Your task to perform on an android device: star an email in the gmail app Image 0: 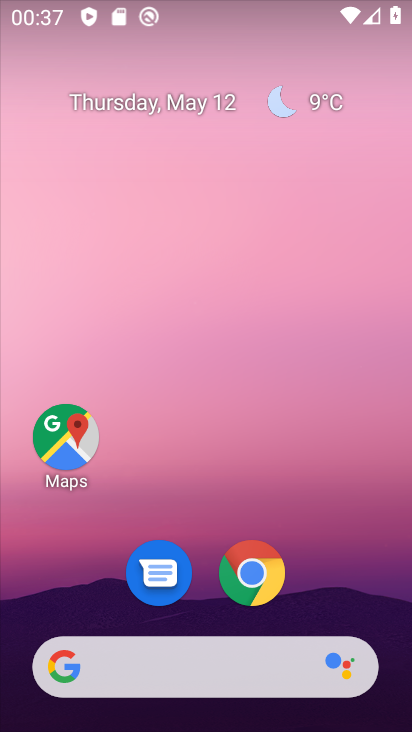
Step 0: drag from (210, 604) to (243, 3)
Your task to perform on an android device: star an email in the gmail app Image 1: 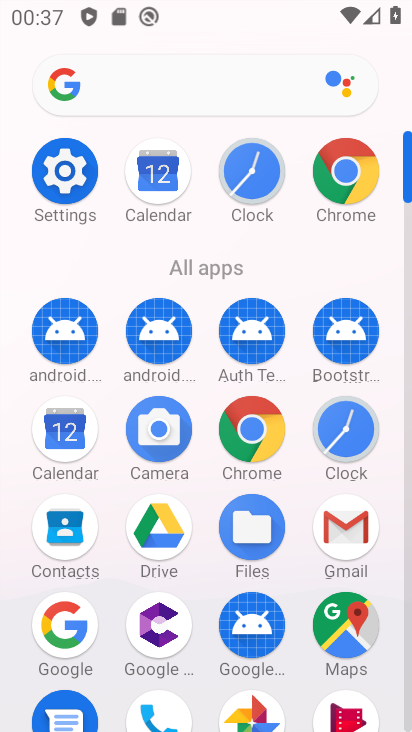
Step 1: click (347, 536)
Your task to perform on an android device: star an email in the gmail app Image 2: 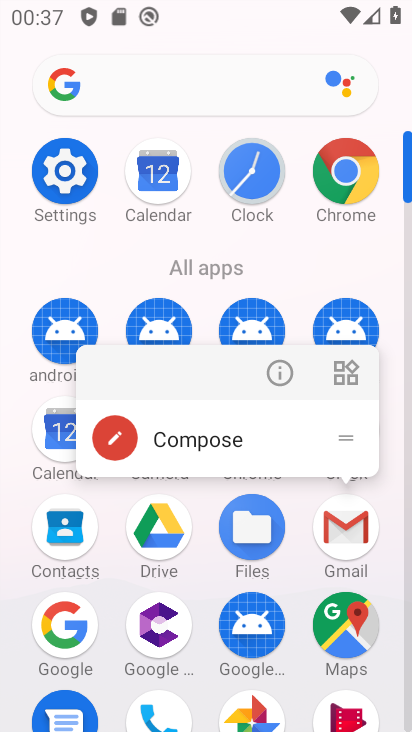
Step 2: click (350, 531)
Your task to perform on an android device: star an email in the gmail app Image 3: 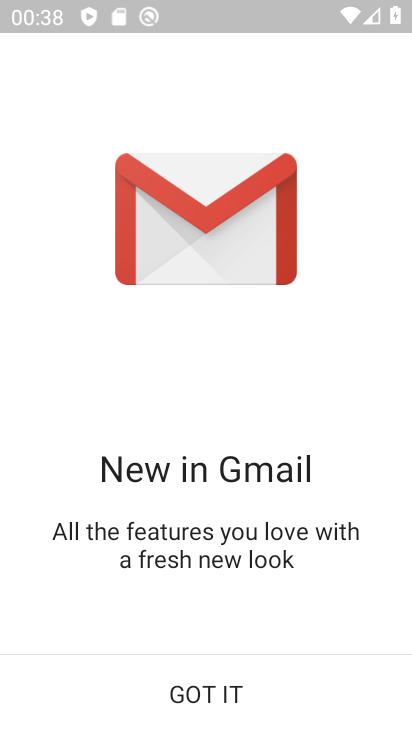
Step 3: click (200, 696)
Your task to perform on an android device: star an email in the gmail app Image 4: 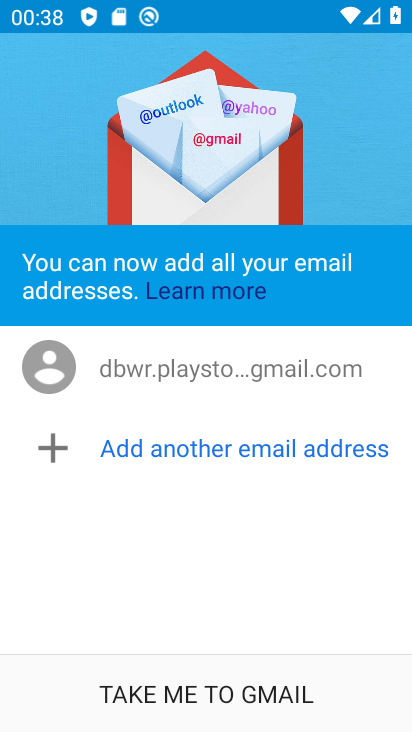
Step 4: click (191, 693)
Your task to perform on an android device: star an email in the gmail app Image 5: 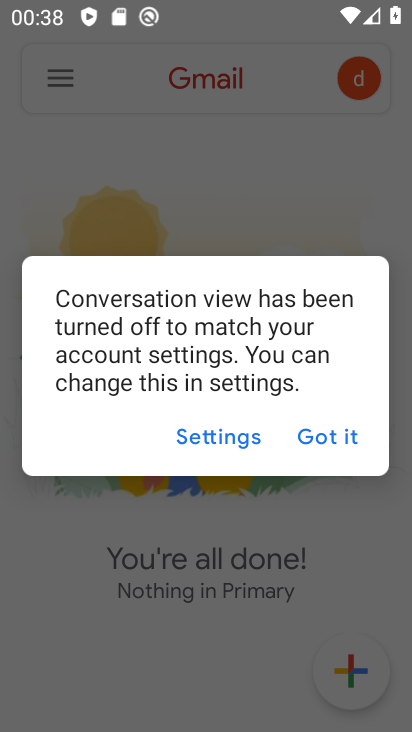
Step 5: click (309, 428)
Your task to perform on an android device: star an email in the gmail app Image 6: 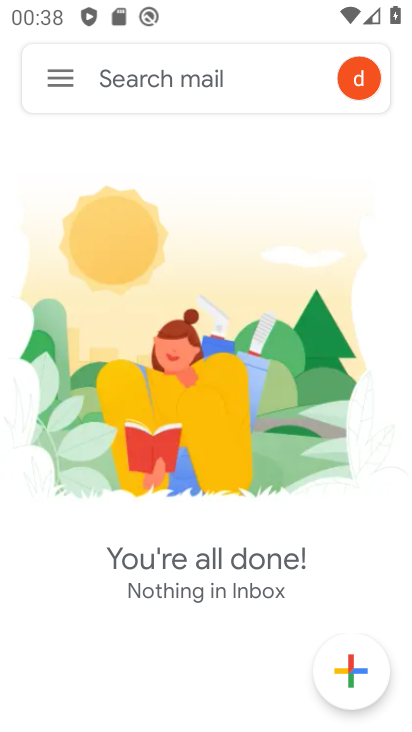
Step 6: click (52, 78)
Your task to perform on an android device: star an email in the gmail app Image 7: 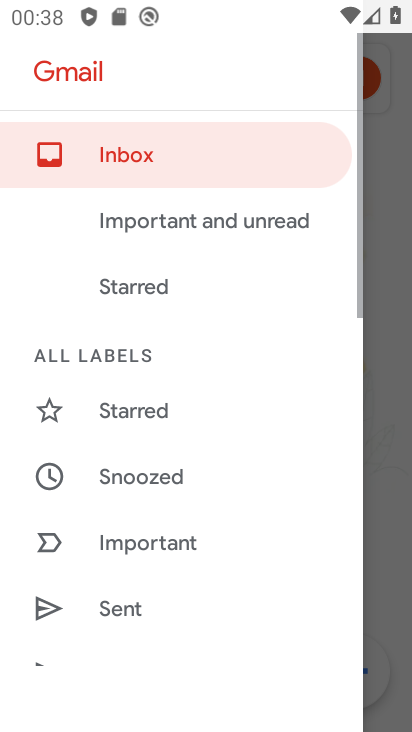
Step 7: drag from (153, 545) to (226, 75)
Your task to perform on an android device: star an email in the gmail app Image 8: 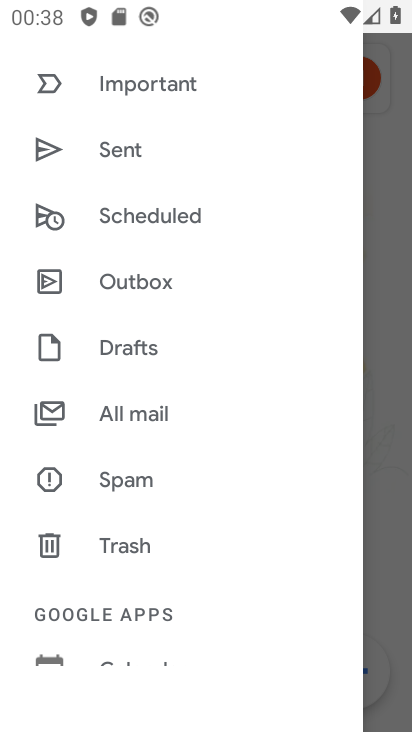
Step 8: click (162, 424)
Your task to perform on an android device: star an email in the gmail app Image 9: 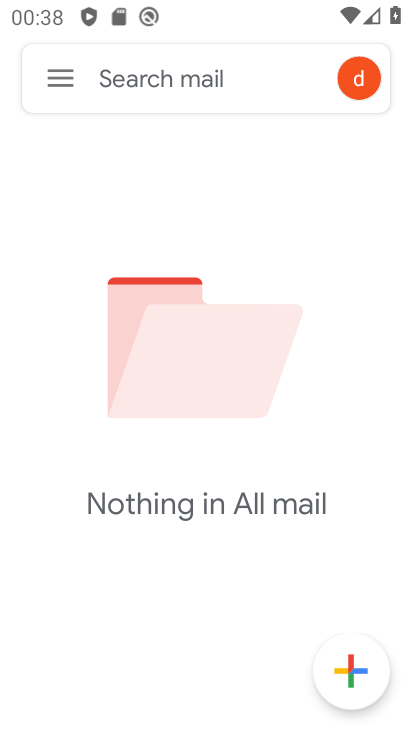
Step 9: task complete